Your task to perform on an android device: turn vacation reply on in the gmail app Image 0: 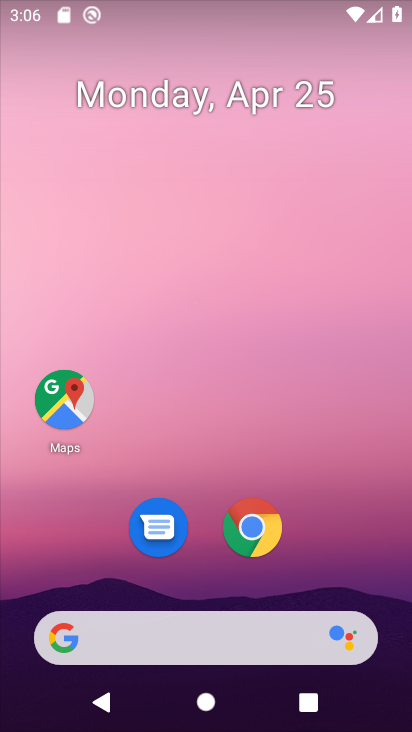
Step 0: drag from (404, 651) to (326, 87)
Your task to perform on an android device: turn vacation reply on in the gmail app Image 1: 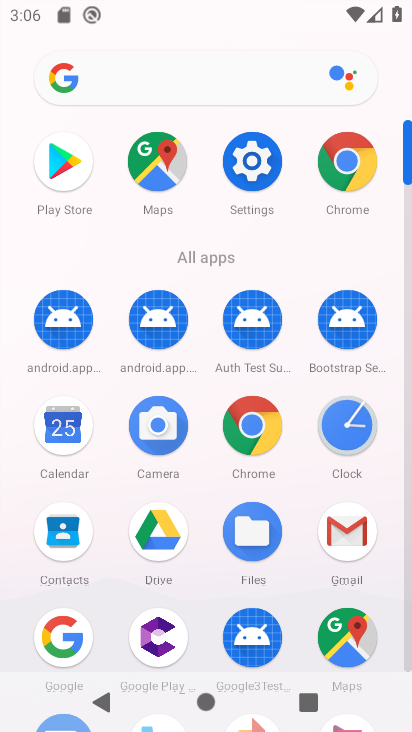
Step 1: click (406, 653)
Your task to perform on an android device: turn vacation reply on in the gmail app Image 2: 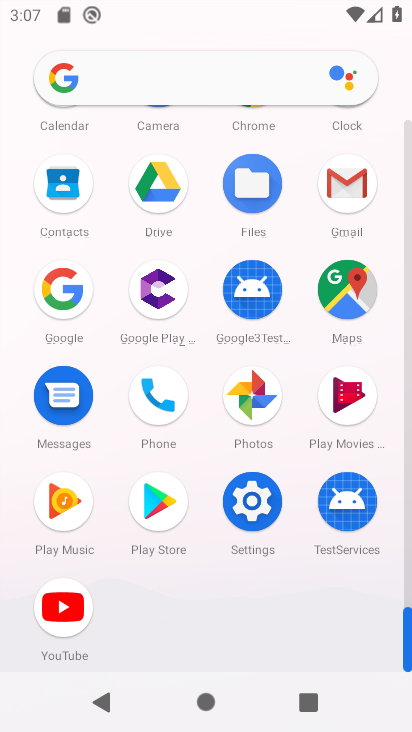
Step 2: click (345, 184)
Your task to perform on an android device: turn vacation reply on in the gmail app Image 3: 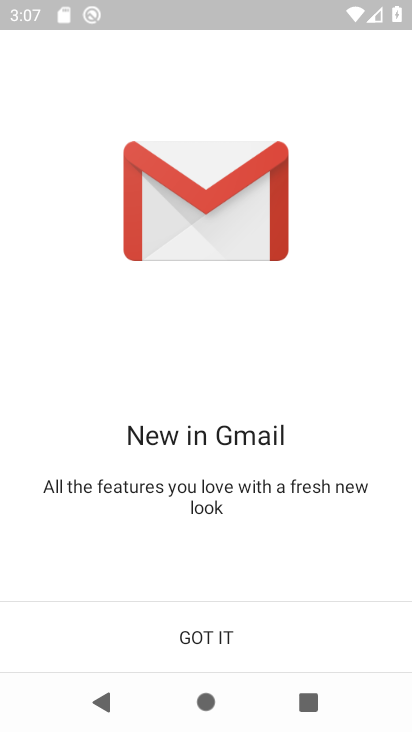
Step 3: click (205, 634)
Your task to perform on an android device: turn vacation reply on in the gmail app Image 4: 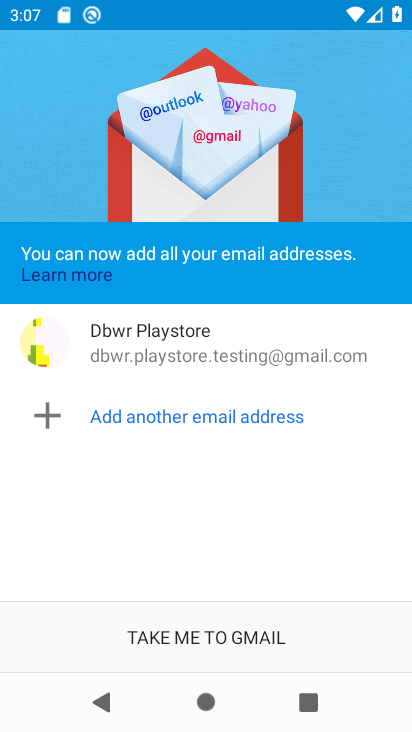
Step 4: click (205, 634)
Your task to perform on an android device: turn vacation reply on in the gmail app Image 5: 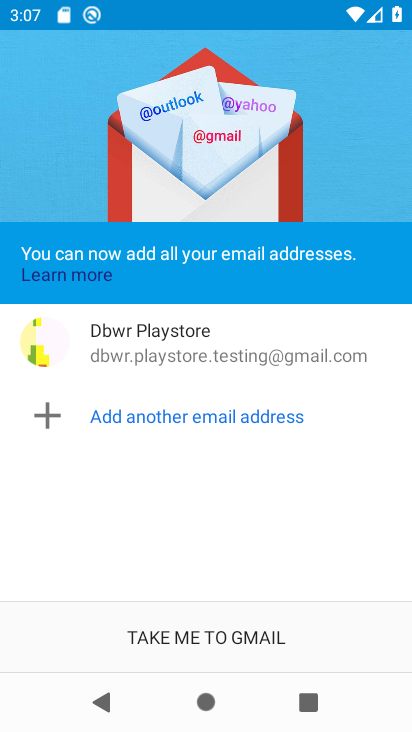
Step 5: click (205, 634)
Your task to perform on an android device: turn vacation reply on in the gmail app Image 6: 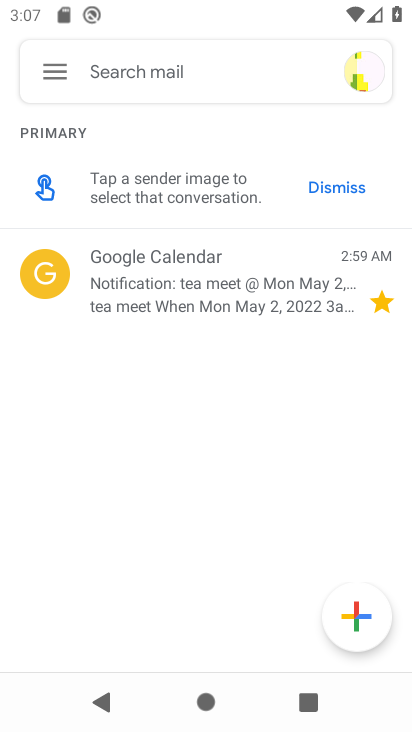
Step 6: click (54, 69)
Your task to perform on an android device: turn vacation reply on in the gmail app Image 7: 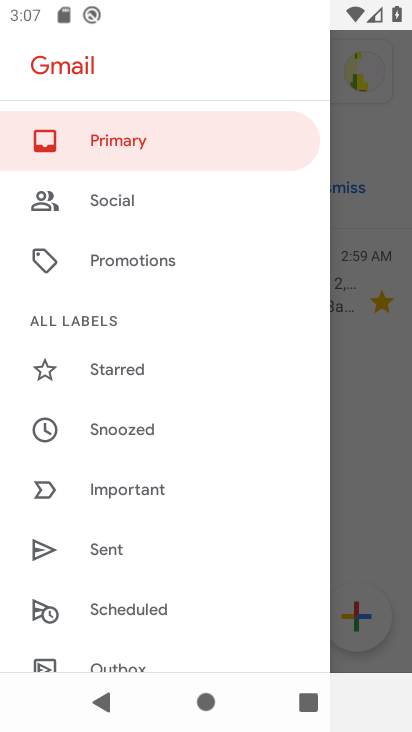
Step 7: drag from (177, 580) to (227, 201)
Your task to perform on an android device: turn vacation reply on in the gmail app Image 8: 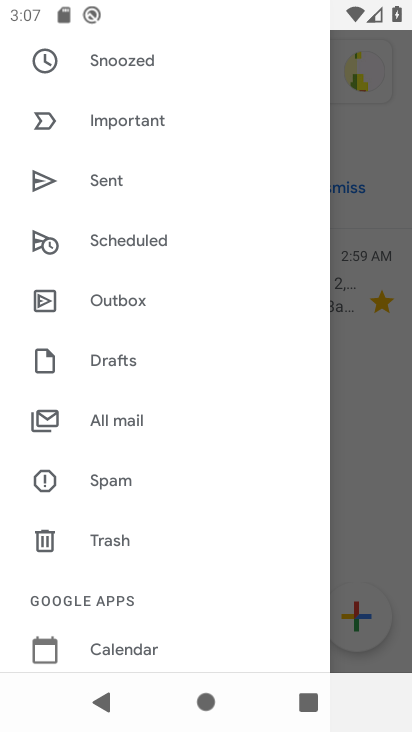
Step 8: drag from (185, 581) to (222, 194)
Your task to perform on an android device: turn vacation reply on in the gmail app Image 9: 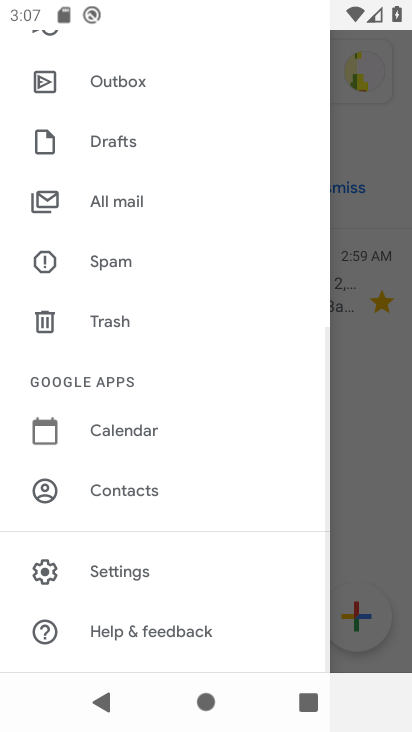
Step 9: click (118, 570)
Your task to perform on an android device: turn vacation reply on in the gmail app Image 10: 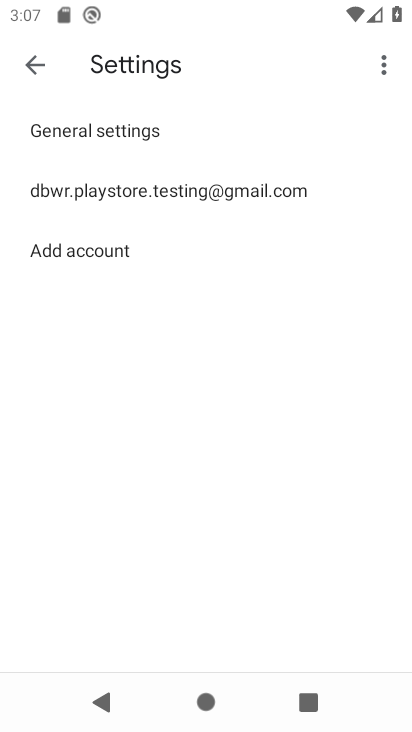
Step 10: click (164, 184)
Your task to perform on an android device: turn vacation reply on in the gmail app Image 11: 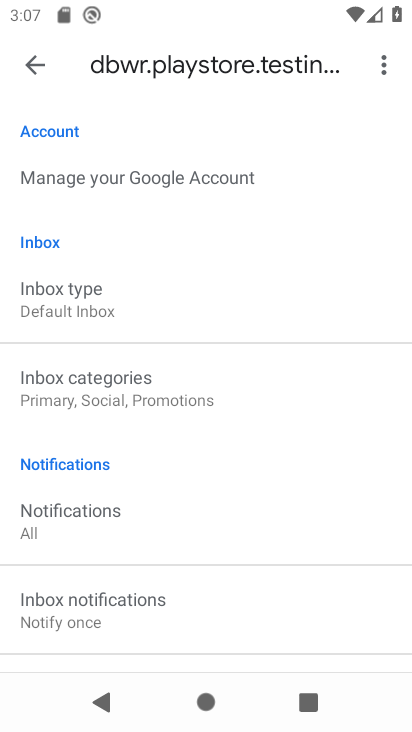
Step 11: drag from (266, 632) to (306, 201)
Your task to perform on an android device: turn vacation reply on in the gmail app Image 12: 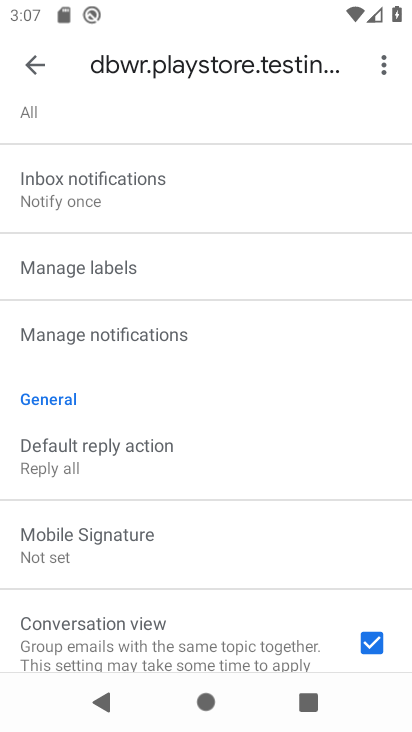
Step 12: drag from (264, 568) to (291, 145)
Your task to perform on an android device: turn vacation reply on in the gmail app Image 13: 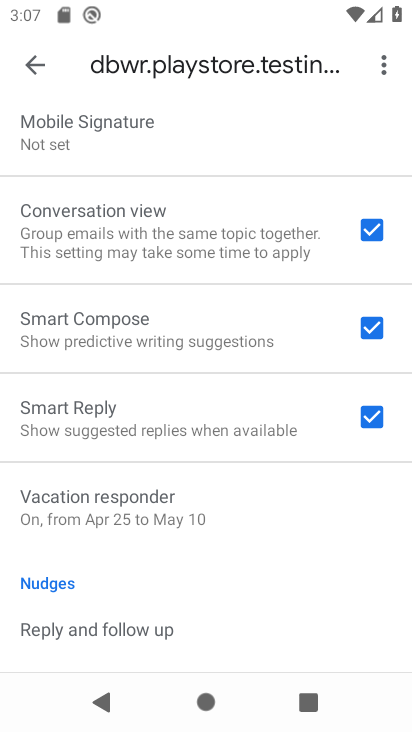
Step 13: click (141, 498)
Your task to perform on an android device: turn vacation reply on in the gmail app Image 14: 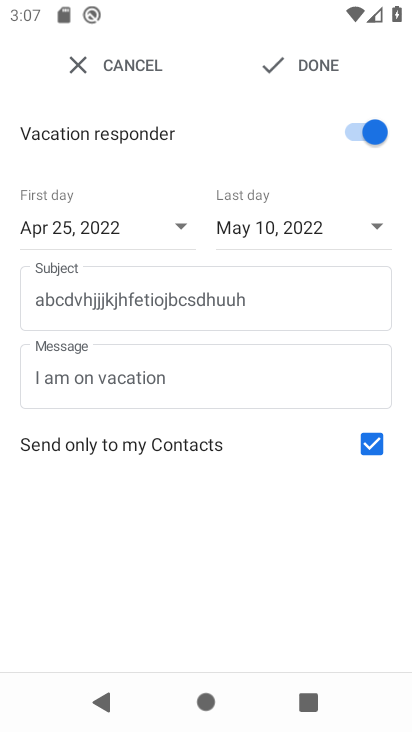
Step 14: task complete